Your task to perform on an android device: delete browsing data in the chrome app Image 0: 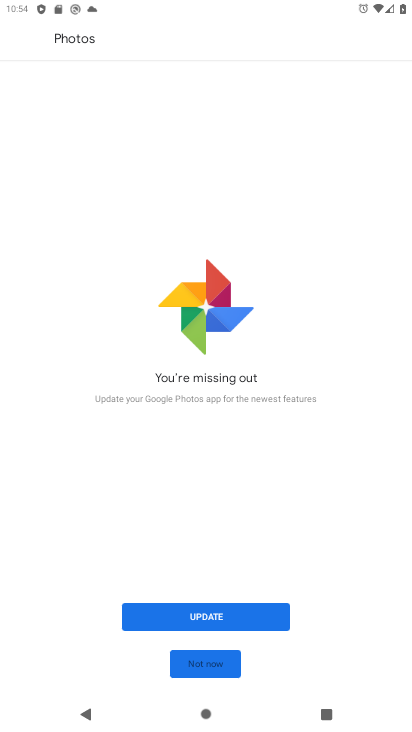
Step 0: press home button
Your task to perform on an android device: delete browsing data in the chrome app Image 1: 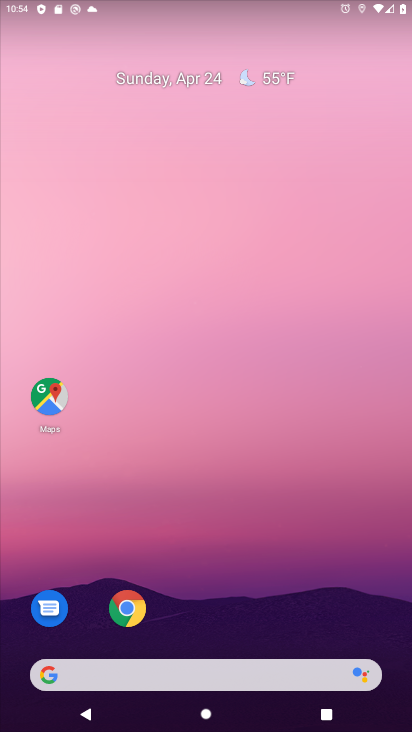
Step 1: click (126, 607)
Your task to perform on an android device: delete browsing data in the chrome app Image 2: 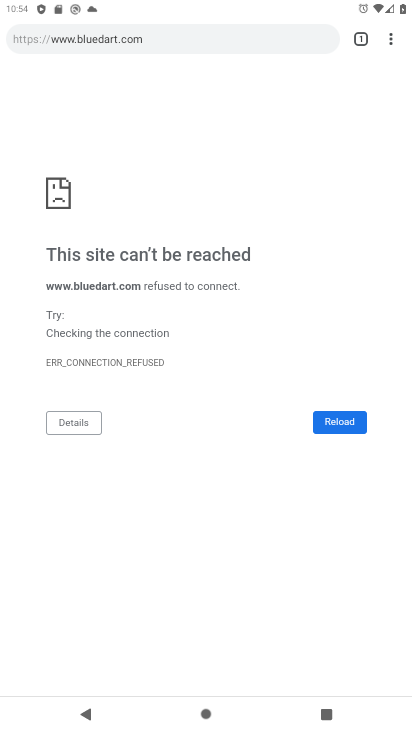
Step 2: click (389, 41)
Your task to perform on an android device: delete browsing data in the chrome app Image 3: 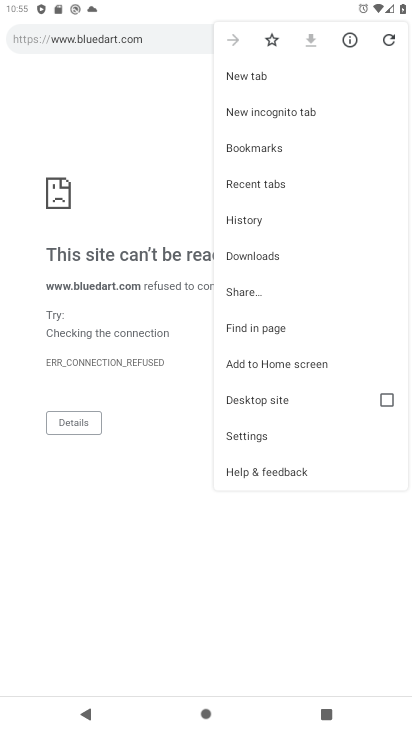
Step 3: click (239, 220)
Your task to perform on an android device: delete browsing data in the chrome app Image 4: 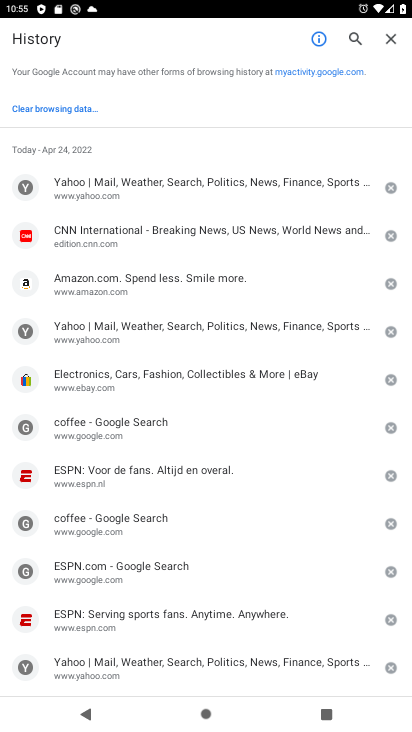
Step 4: click (46, 108)
Your task to perform on an android device: delete browsing data in the chrome app Image 5: 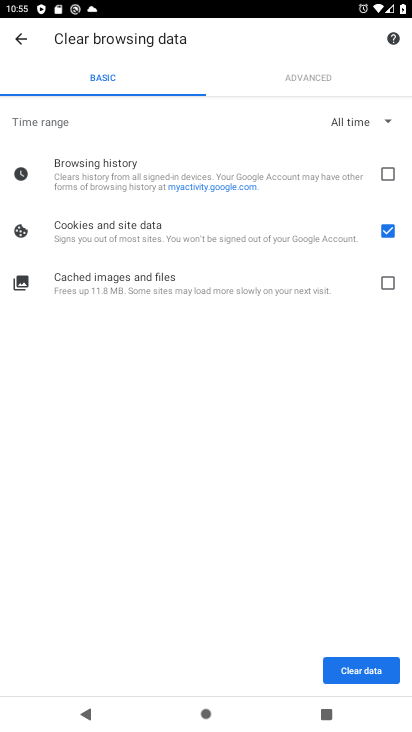
Step 5: click (387, 174)
Your task to perform on an android device: delete browsing data in the chrome app Image 6: 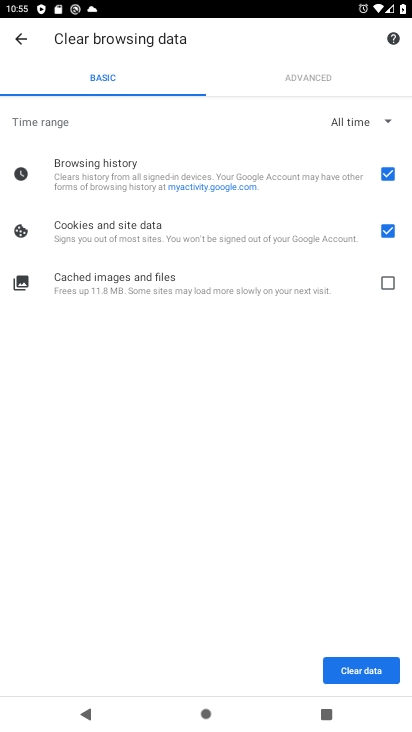
Step 6: click (388, 227)
Your task to perform on an android device: delete browsing data in the chrome app Image 7: 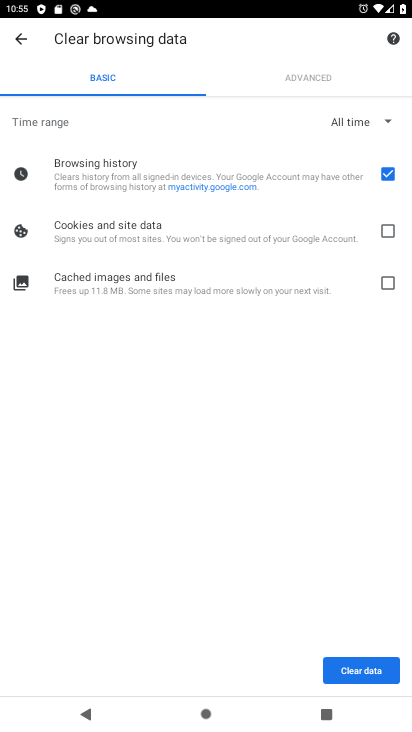
Step 7: click (358, 672)
Your task to perform on an android device: delete browsing data in the chrome app Image 8: 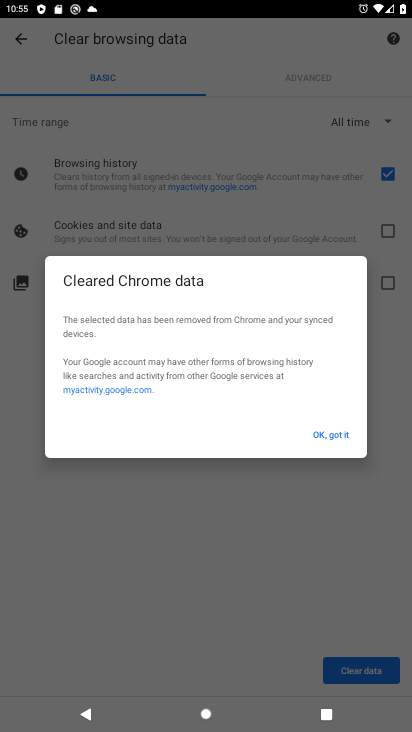
Step 8: click (324, 441)
Your task to perform on an android device: delete browsing data in the chrome app Image 9: 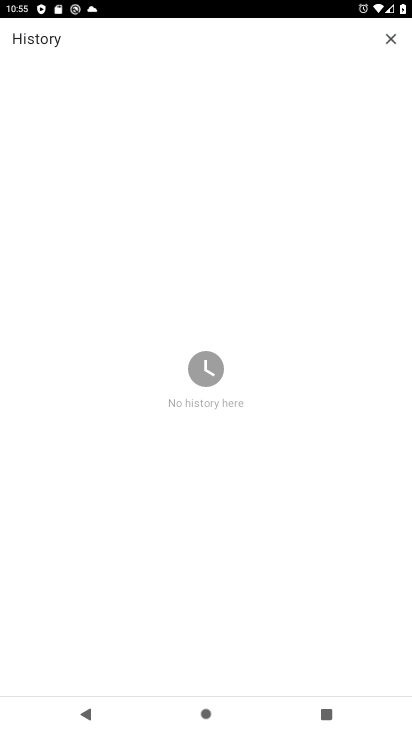
Step 9: task complete